Your task to perform on an android device: Toggle the flashlight Image 0: 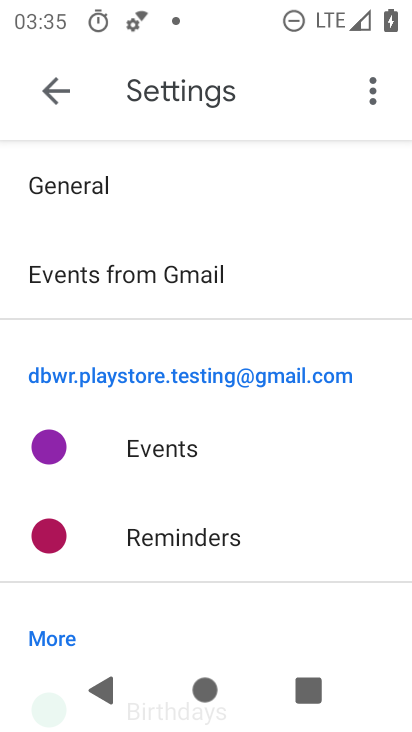
Step 0: press home button
Your task to perform on an android device: Toggle the flashlight Image 1: 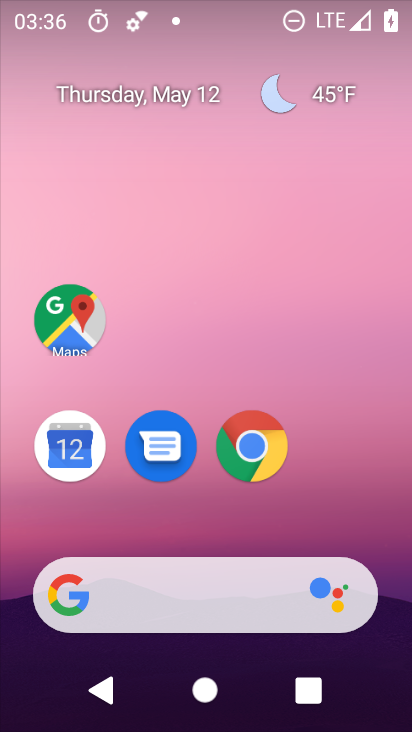
Step 1: drag from (193, 455) to (235, 28)
Your task to perform on an android device: Toggle the flashlight Image 2: 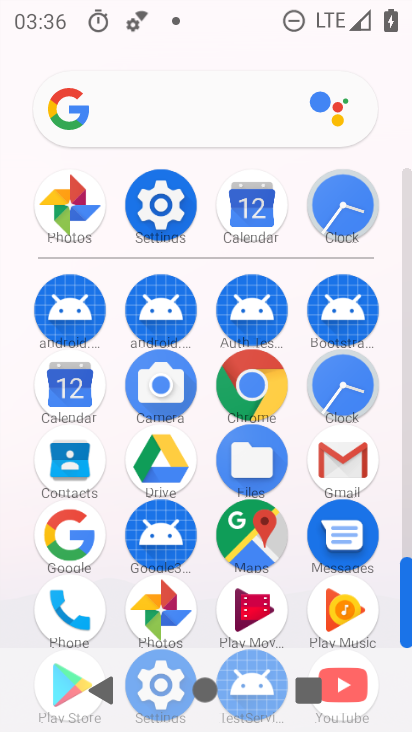
Step 2: click (154, 200)
Your task to perform on an android device: Toggle the flashlight Image 3: 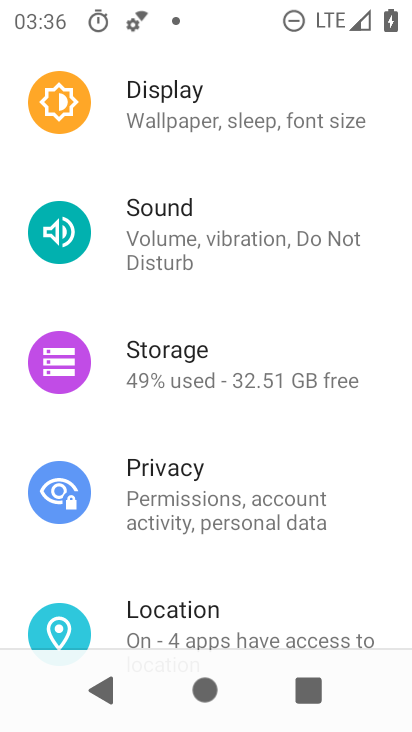
Step 3: click (198, 343)
Your task to perform on an android device: Toggle the flashlight Image 4: 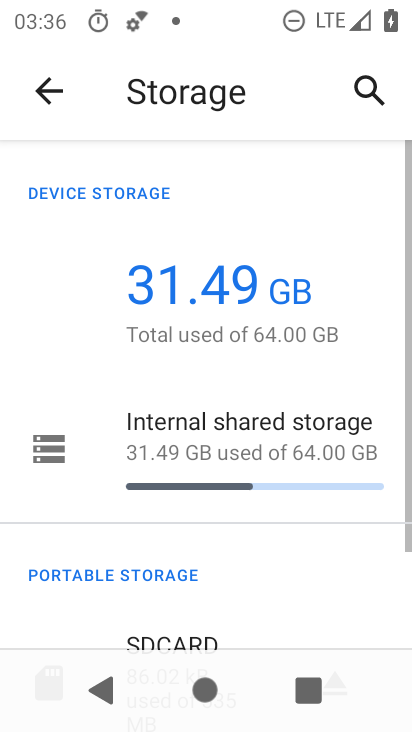
Step 4: task complete